Your task to perform on an android device: find photos in the google photos app Image 0: 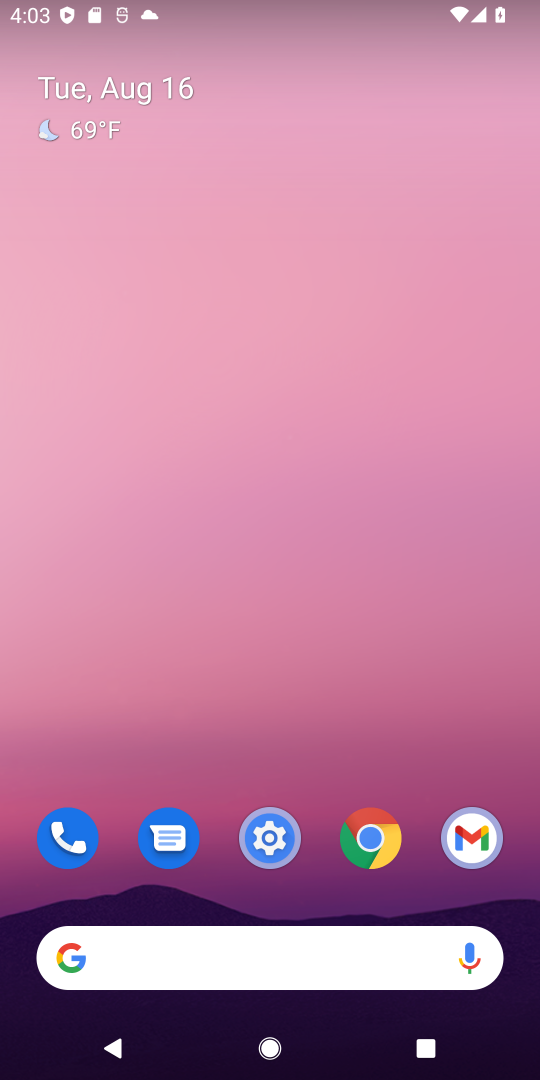
Step 0: drag from (284, 949) to (219, 478)
Your task to perform on an android device: find photos in the google photos app Image 1: 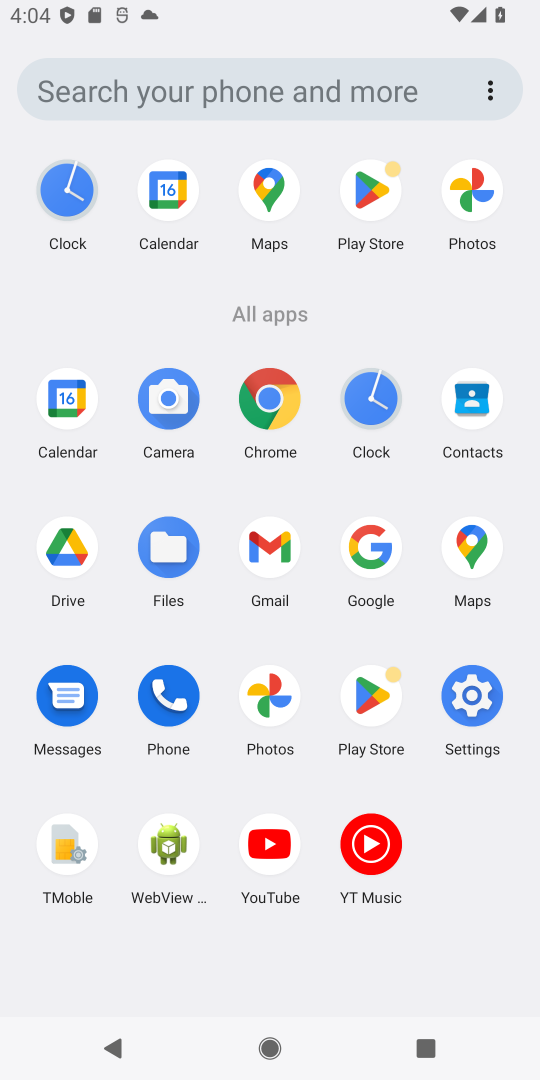
Step 1: click (277, 710)
Your task to perform on an android device: find photos in the google photos app Image 2: 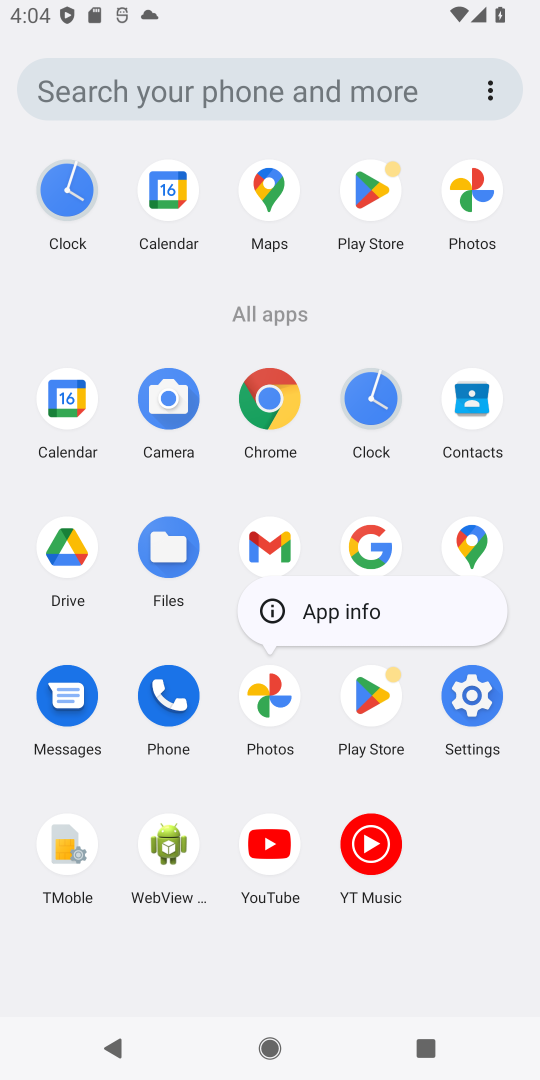
Step 2: click (277, 710)
Your task to perform on an android device: find photos in the google photos app Image 3: 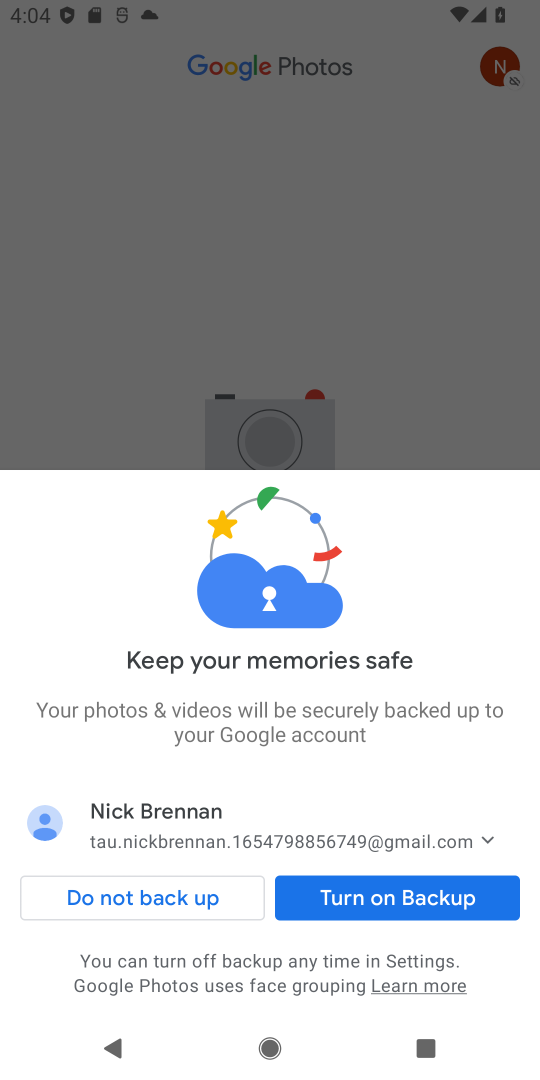
Step 3: click (395, 898)
Your task to perform on an android device: find photos in the google photos app Image 4: 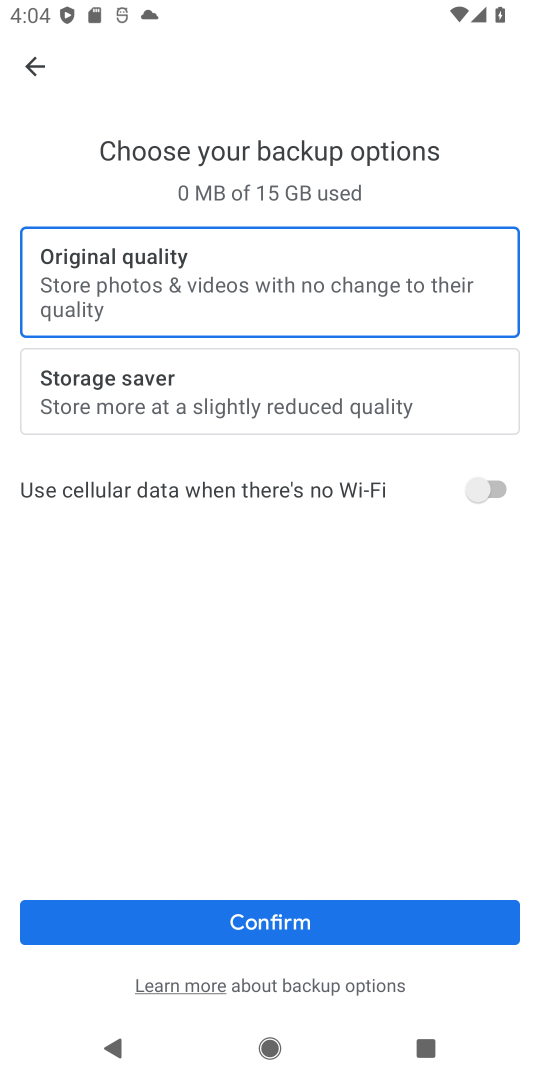
Step 4: click (307, 911)
Your task to perform on an android device: find photos in the google photos app Image 5: 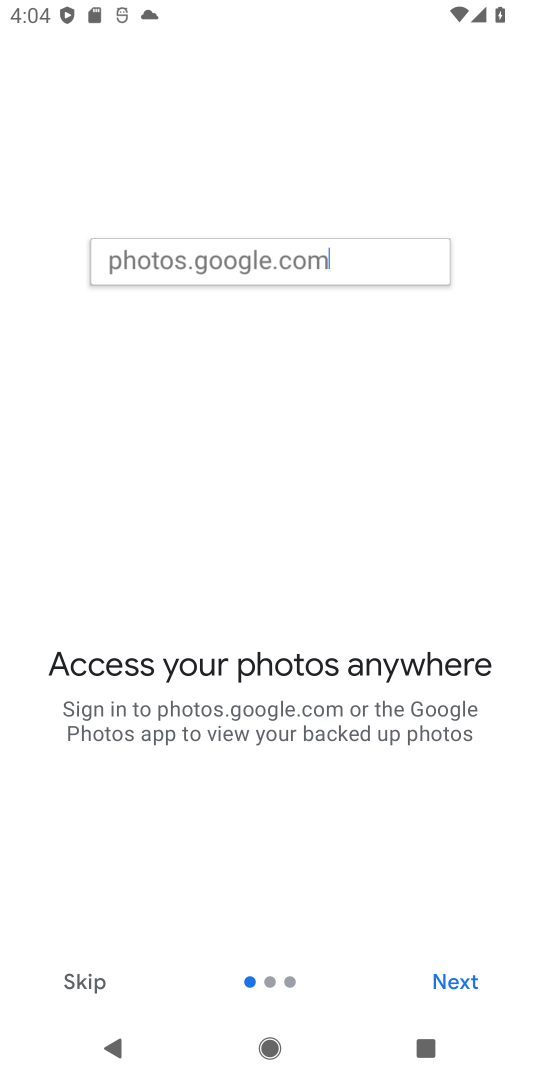
Step 5: click (92, 985)
Your task to perform on an android device: find photos in the google photos app Image 6: 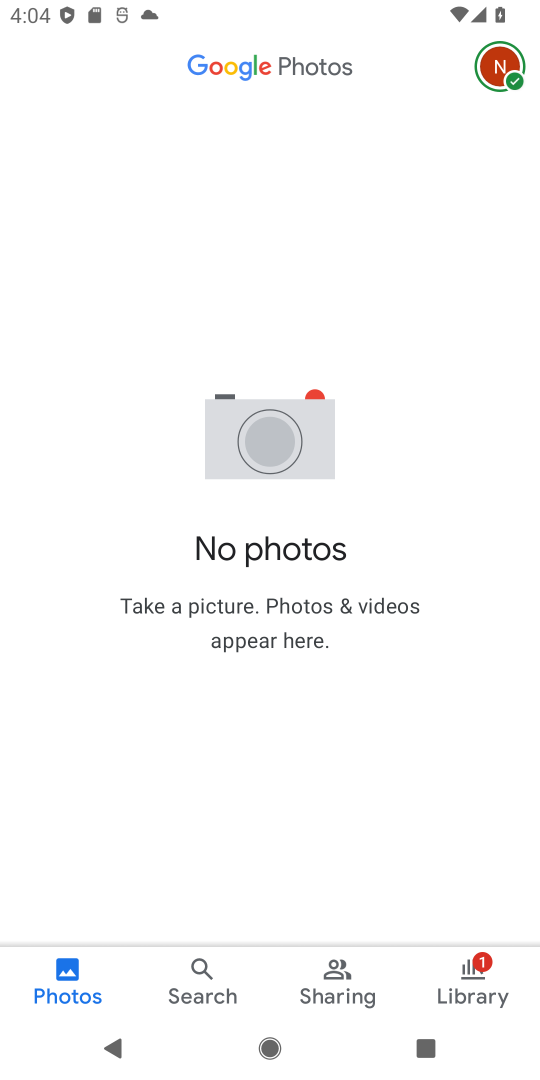
Step 6: click (50, 975)
Your task to perform on an android device: find photos in the google photos app Image 7: 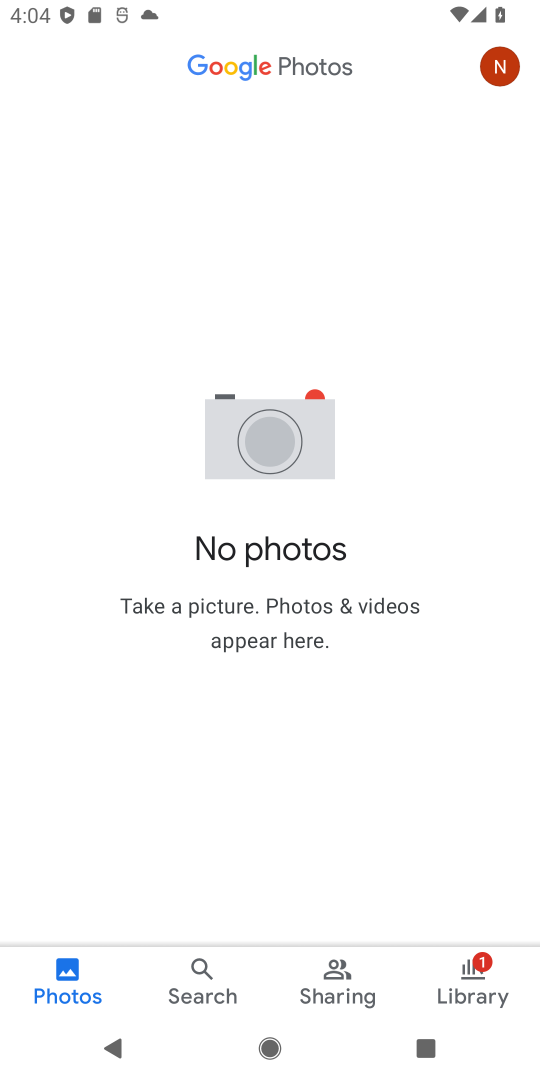
Step 7: task complete